Your task to perform on an android device: choose inbox layout in the gmail app Image 0: 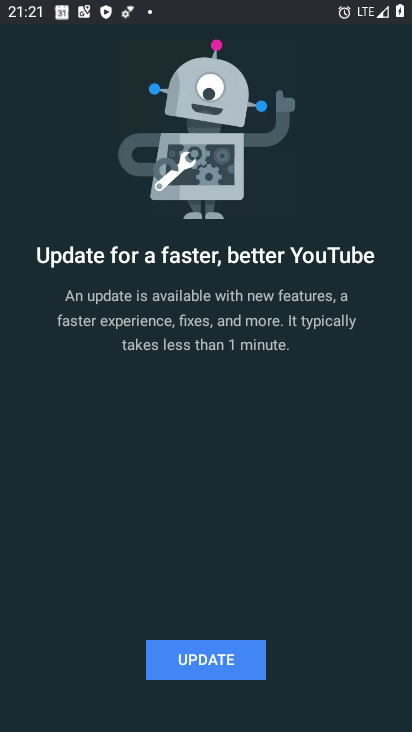
Step 0: press home button
Your task to perform on an android device: choose inbox layout in the gmail app Image 1: 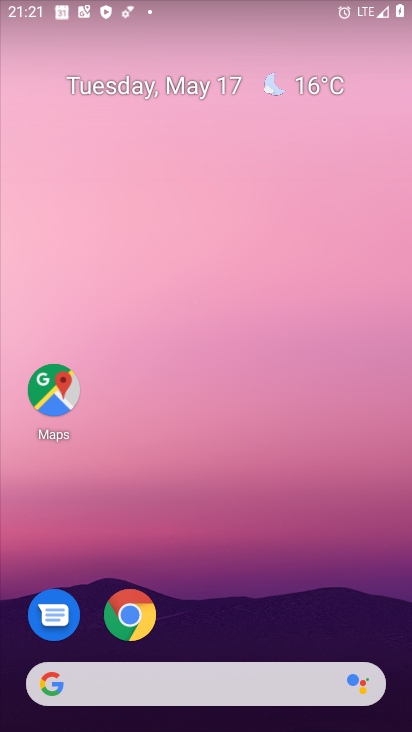
Step 1: drag from (296, 527) to (258, 74)
Your task to perform on an android device: choose inbox layout in the gmail app Image 2: 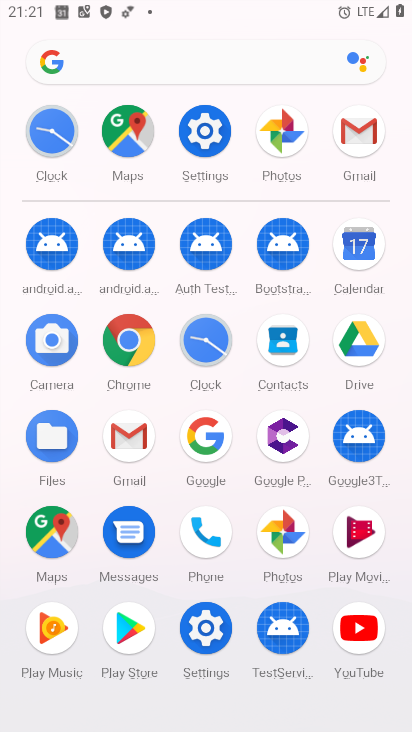
Step 2: click (372, 125)
Your task to perform on an android device: choose inbox layout in the gmail app Image 3: 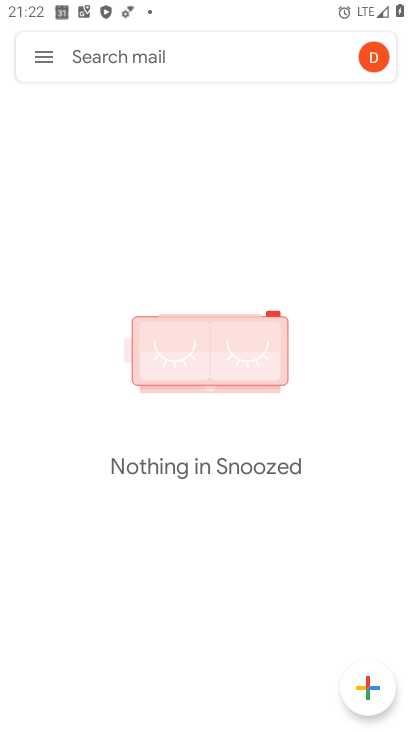
Step 3: click (40, 47)
Your task to perform on an android device: choose inbox layout in the gmail app Image 4: 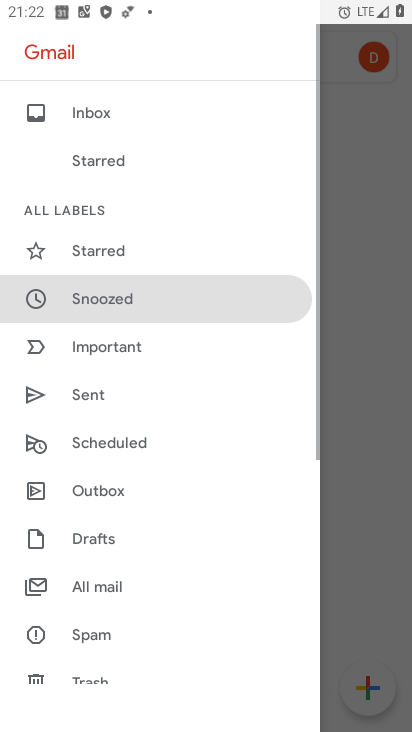
Step 4: drag from (136, 585) to (152, 217)
Your task to perform on an android device: choose inbox layout in the gmail app Image 5: 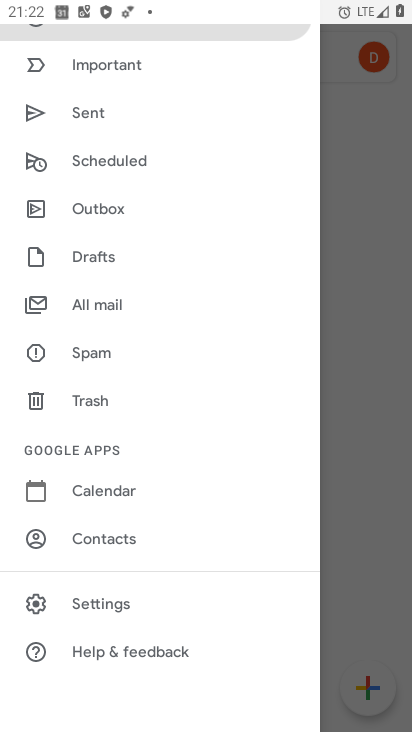
Step 5: click (146, 605)
Your task to perform on an android device: choose inbox layout in the gmail app Image 6: 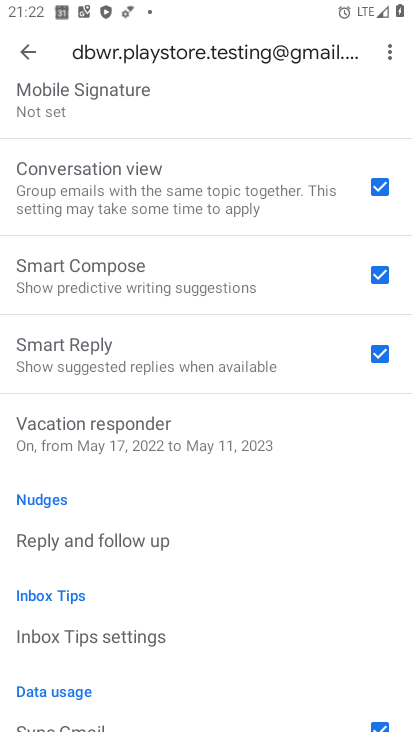
Step 6: drag from (211, 609) to (216, 722)
Your task to perform on an android device: choose inbox layout in the gmail app Image 7: 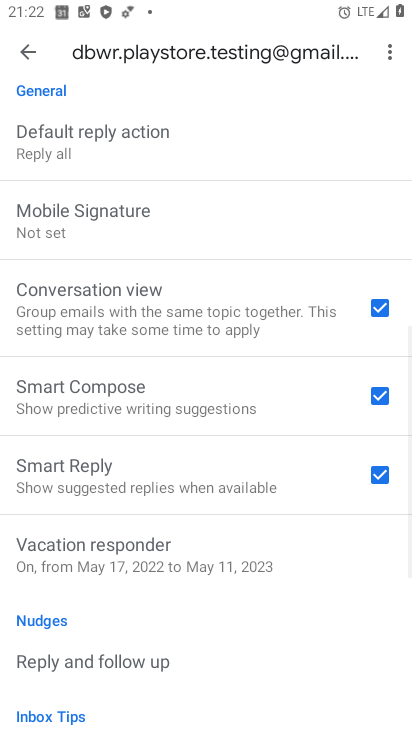
Step 7: drag from (210, 171) to (142, 504)
Your task to perform on an android device: choose inbox layout in the gmail app Image 8: 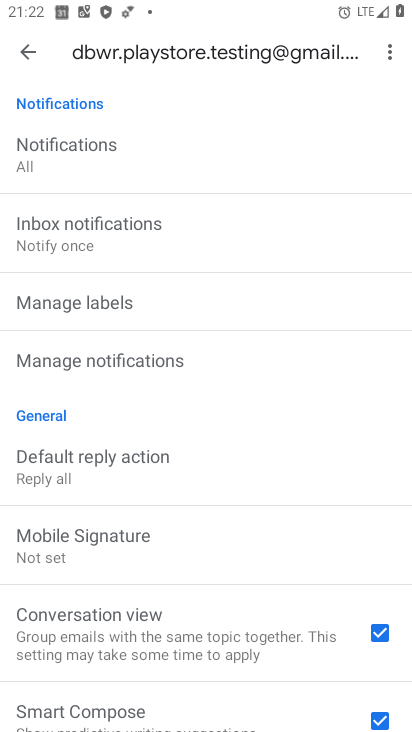
Step 8: drag from (96, 138) to (119, 517)
Your task to perform on an android device: choose inbox layout in the gmail app Image 9: 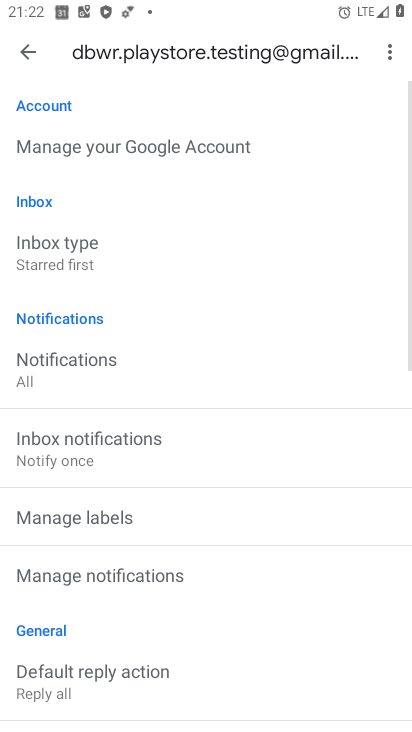
Step 9: click (75, 229)
Your task to perform on an android device: choose inbox layout in the gmail app Image 10: 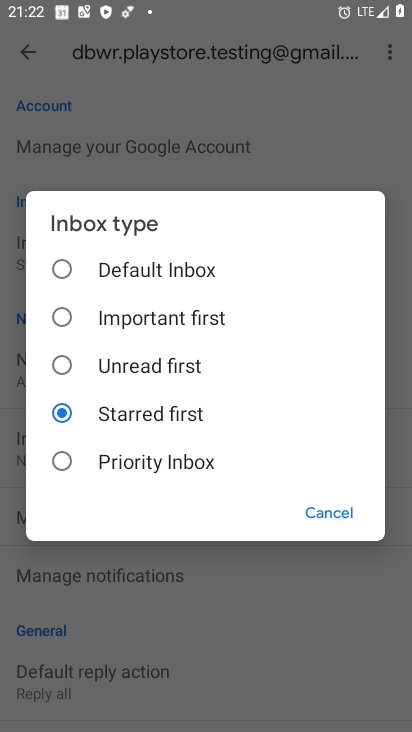
Step 10: click (143, 274)
Your task to perform on an android device: choose inbox layout in the gmail app Image 11: 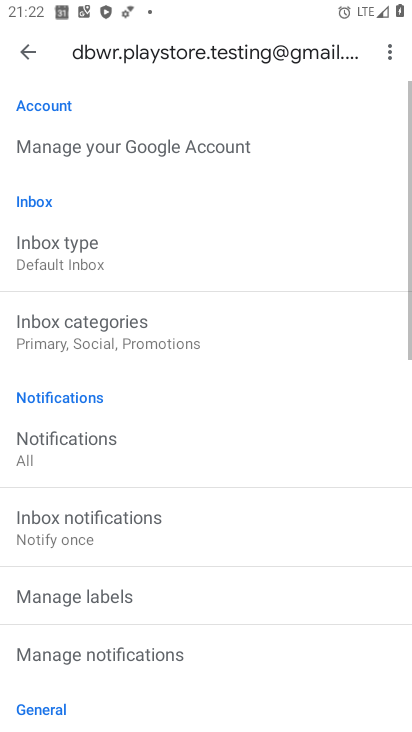
Step 11: task complete